Your task to perform on an android device: turn off location Image 0: 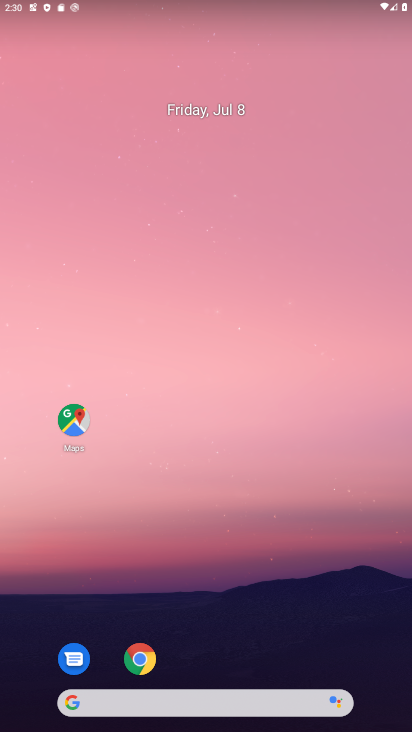
Step 0: drag from (233, 308) to (163, 69)
Your task to perform on an android device: turn off location Image 1: 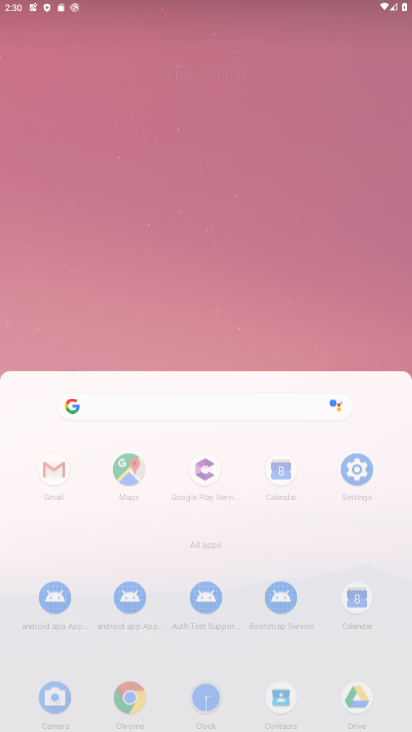
Step 1: drag from (184, 501) to (147, 21)
Your task to perform on an android device: turn off location Image 2: 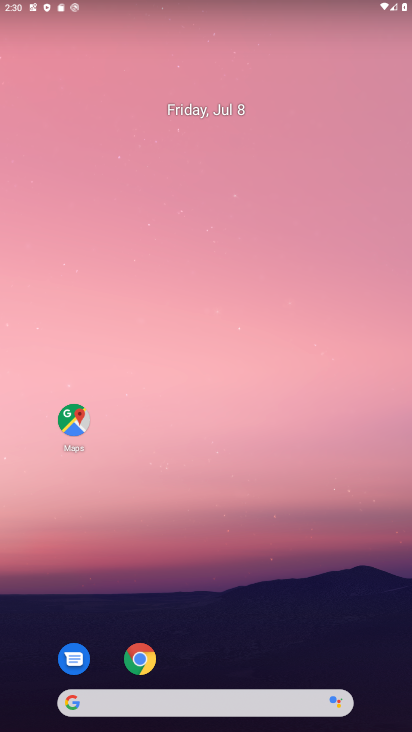
Step 2: drag from (286, 652) to (119, 95)
Your task to perform on an android device: turn off location Image 3: 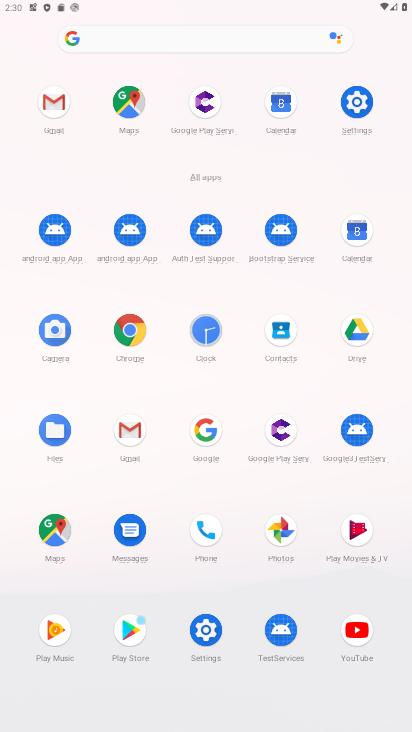
Step 3: click (204, 633)
Your task to perform on an android device: turn off location Image 4: 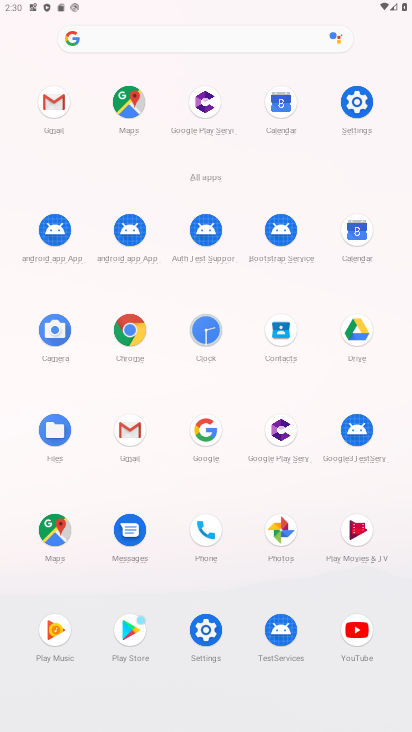
Step 4: click (204, 624)
Your task to perform on an android device: turn off location Image 5: 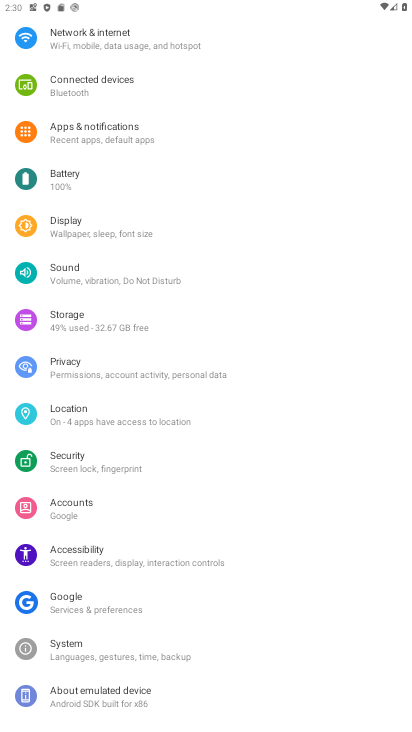
Step 5: drag from (214, 636) to (344, 116)
Your task to perform on an android device: turn off location Image 6: 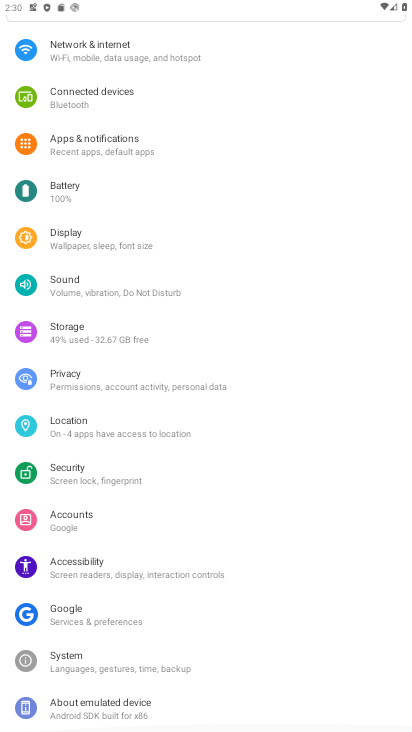
Step 6: click (360, 112)
Your task to perform on an android device: turn off location Image 7: 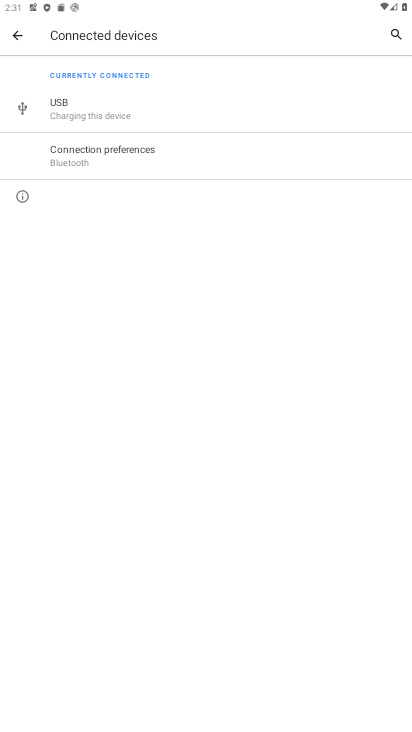
Step 7: click (14, 38)
Your task to perform on an android device: turn off location Image 8: 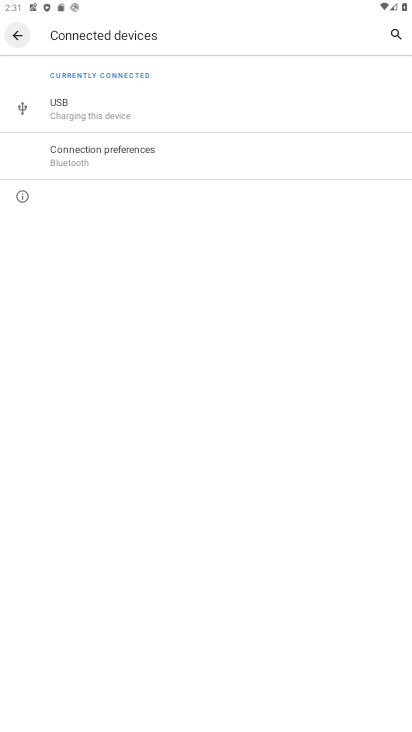
Step 8: click (9, 32)
Your task to perform on an android device: turn off location Image 9: 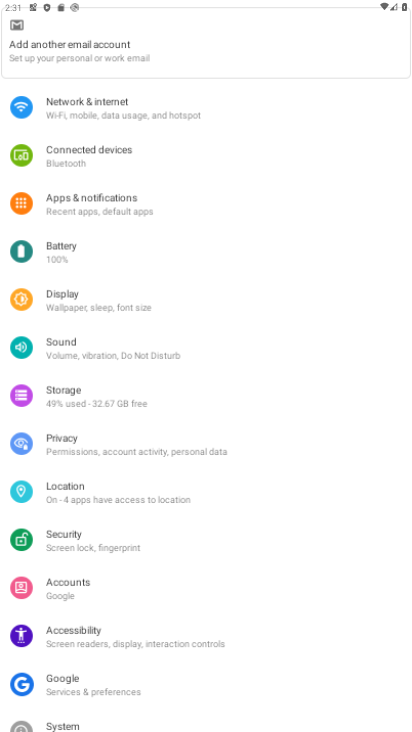
Step 9: click (9, 32)
Your task to perform on an android device: turn off location Image 10: 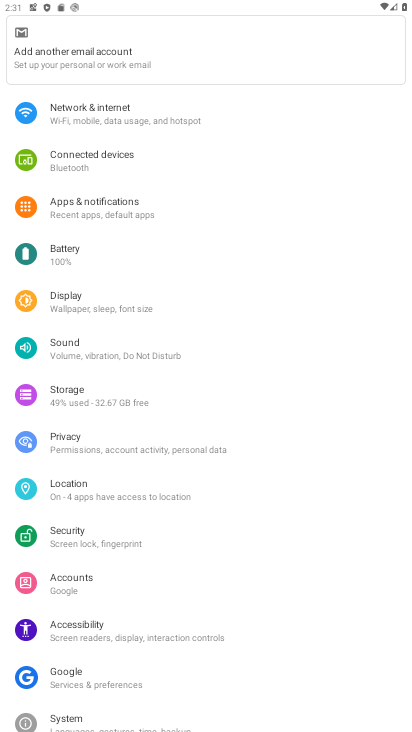
Step 10: click (94, 483)
Your task to perform on an android device: turn off location Image 11: 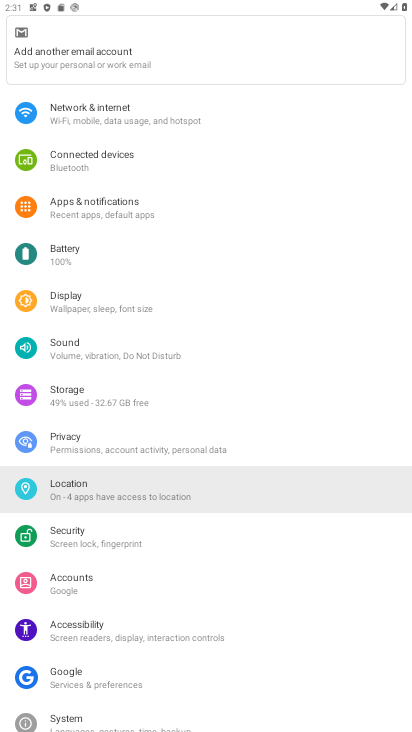
Step 11: click (90, 493)
Your task to perform on an android device: turn off location Image 12: 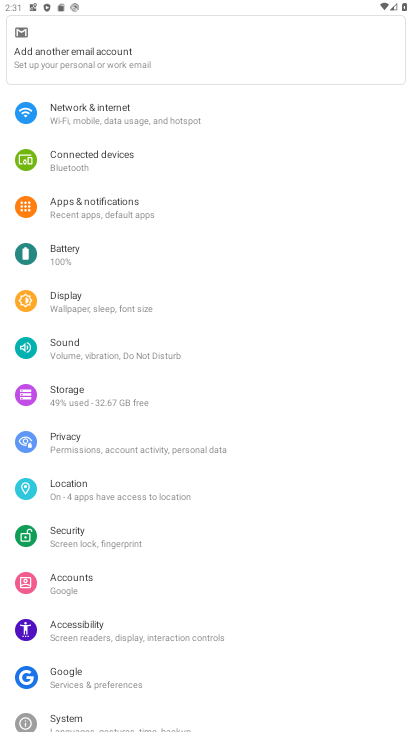
Step 12: click (85, 486)
Your task to perform on an android device: turn off location Image 13: 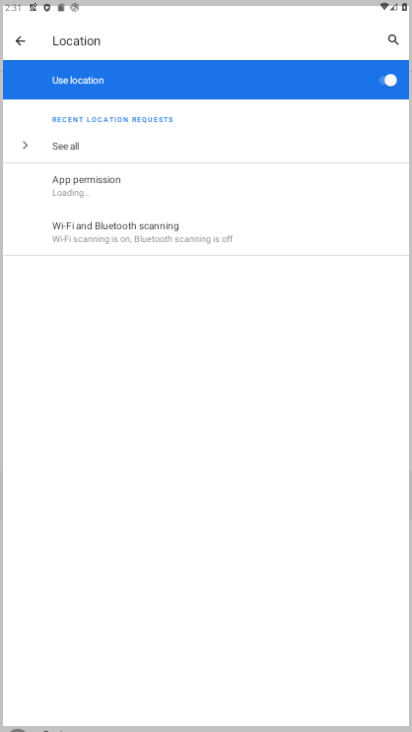
Step 13: click (89, 487)
Your task to perform on an android device: turn off location Image 14: 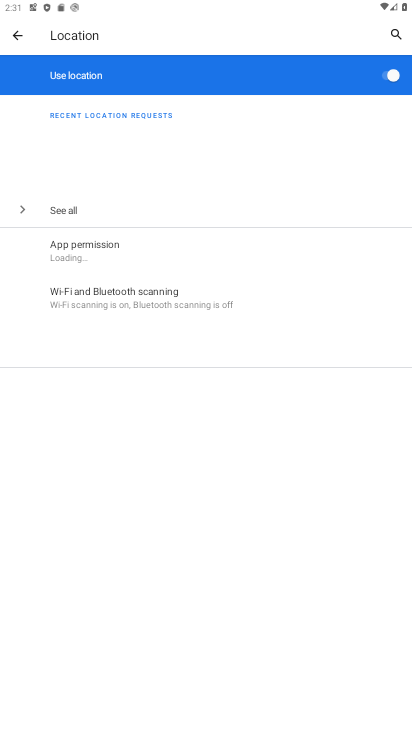
Step 14: click (122, 499)
Your task to perform on an android device: turn off location Image 15: 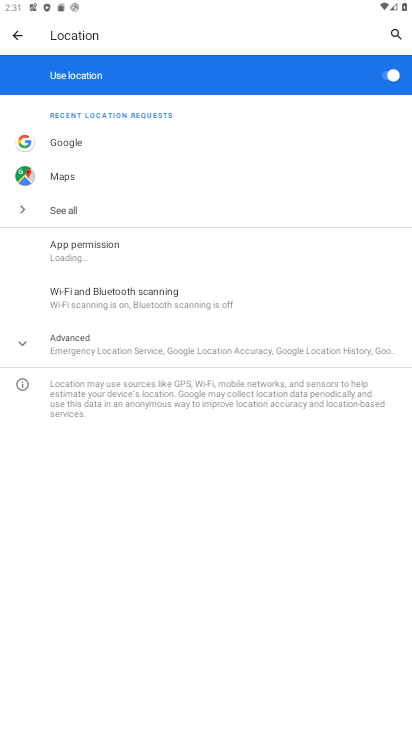
Step 15: click (121, 499)
Your task to perform on an android device: turn off location Image 16: 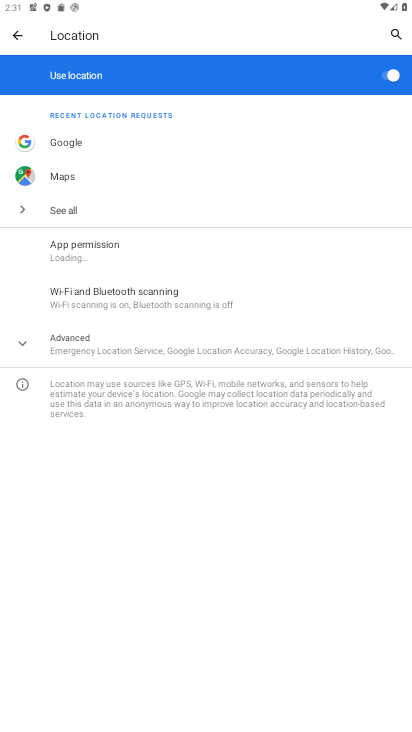
Step 16: click (120, 497)
Your task to perform on an android device: turn off location Image 17: 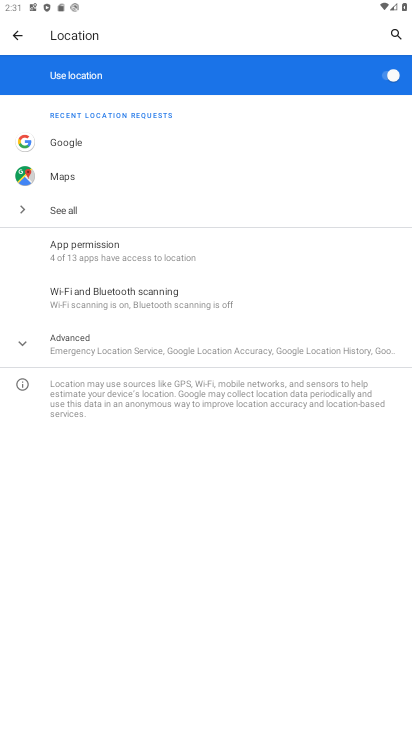
Step 17: click (392, 78)
Your task to perform on an android device: turn off location Image 18: 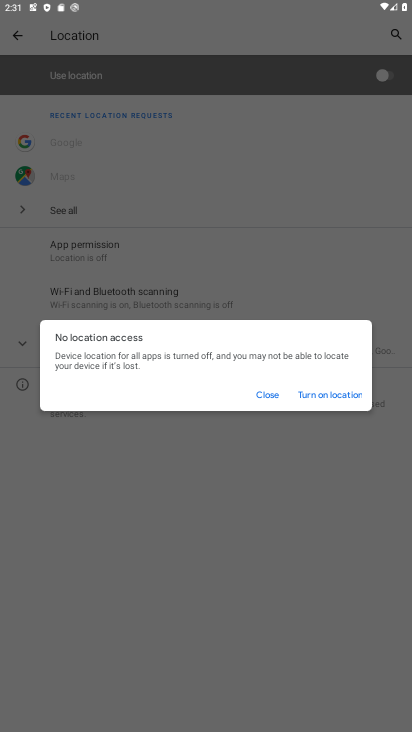
Step 18: task complete